Your task to perform on an android device: turn off sleep mode Image 0: 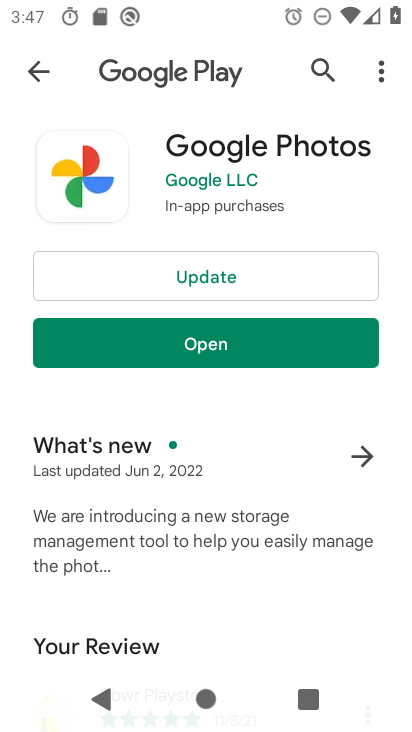
Step 0: press home button
Your task to perform on an android device: turn off sleep mode Image 1: 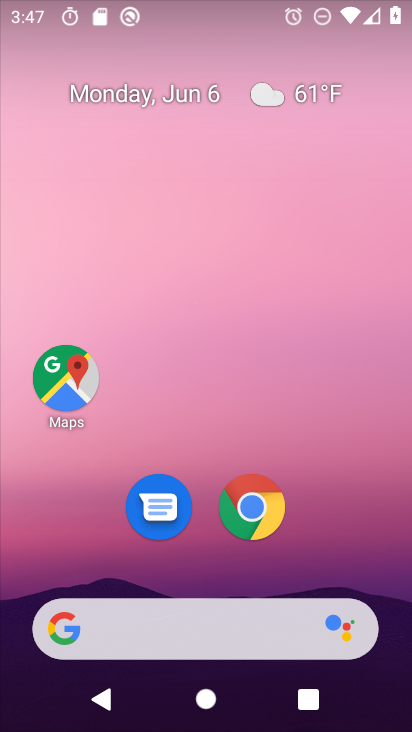
Step 1: drag from (175, 570) to (152, 81)
Your task to perform on an android device: turn off sleep mode Image 2: 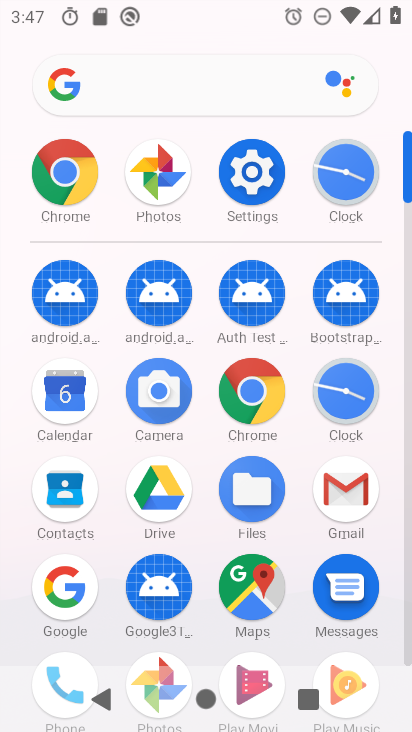
Step 2: click (242, 148)
Your task to perform on an android device: turn off sleep mode Image 3: 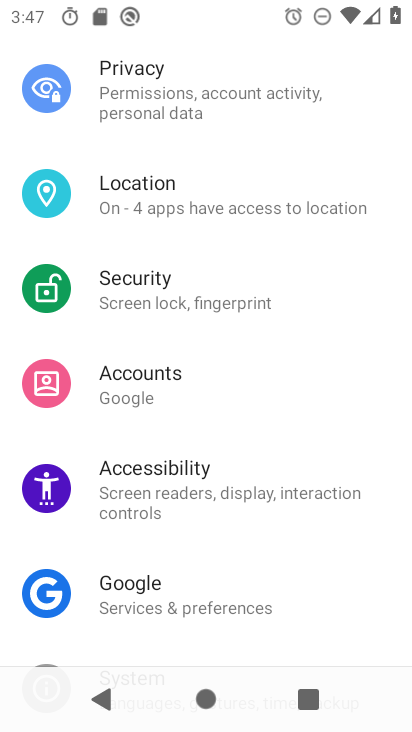
Step 3: drag from (227, 189) to (228, 503)
Your task to perform on an android device: turn off sleep mode Image 4: 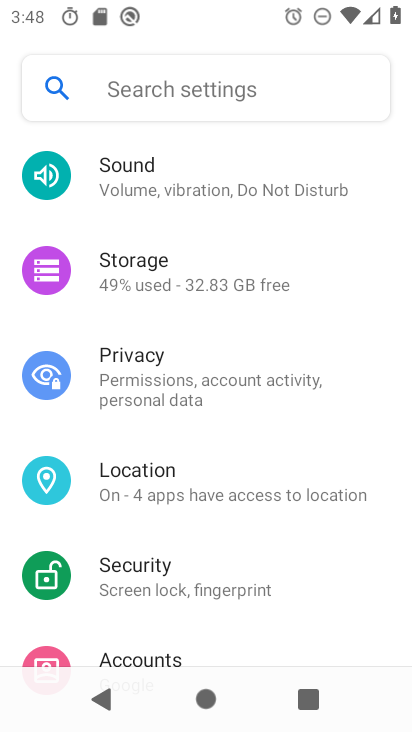
Step 4: drag from (186, 189) to (186, 482)
Your task to perform on an android device: turn off sleep mode Image 5: 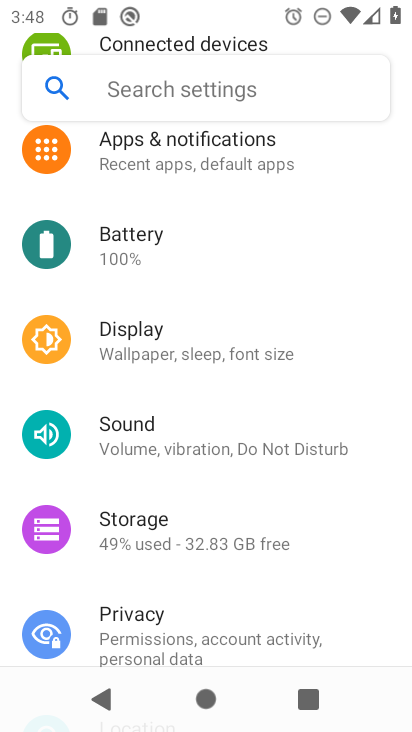
Step 5: drag from (213, 209) to (229, 521)
Your task to perform on an android device: turn off sleep mode Image 6: 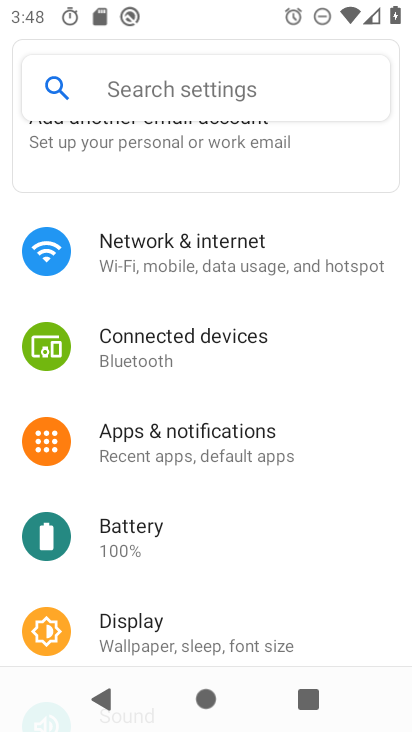
Step 6: click (180, 621)
Your task to perform on an android device: turn off sleep mode Image 7: 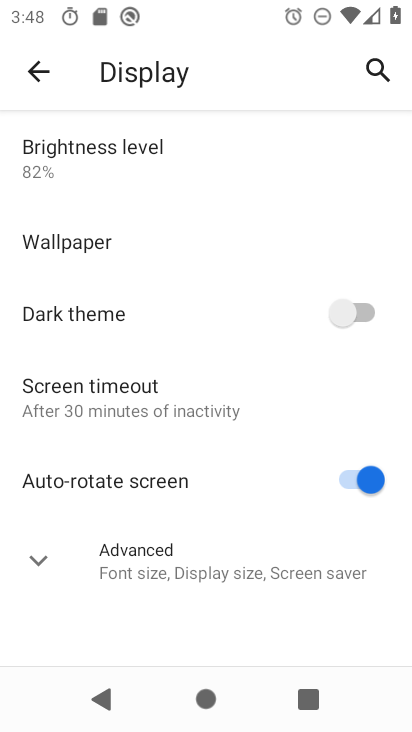
Step 7: click (112, 421)
Your task to perform on an android device: turn off sleep mode Image 8: 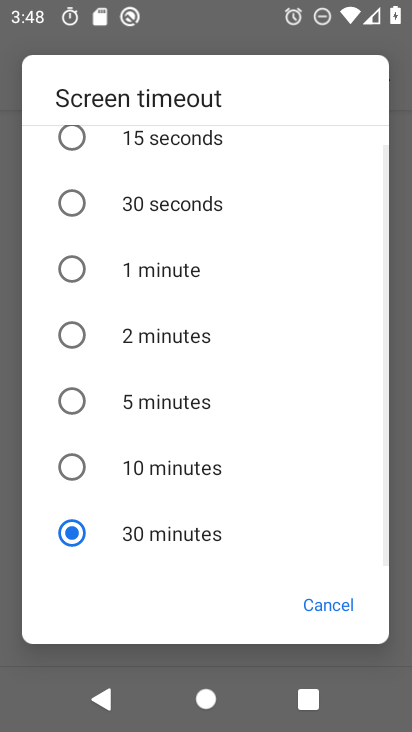
Step 8: click (142, 326)
Your task to perform on an android device: turn off sleep mode Image 9: 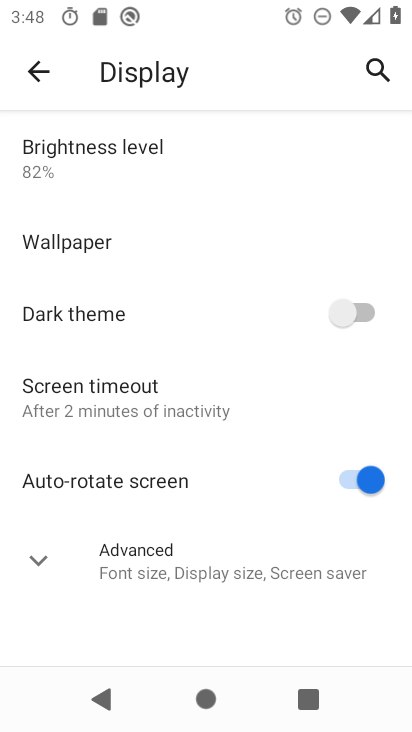
Step 9: task complete